Your task to perform on an android device: Open Android settings Image 0: 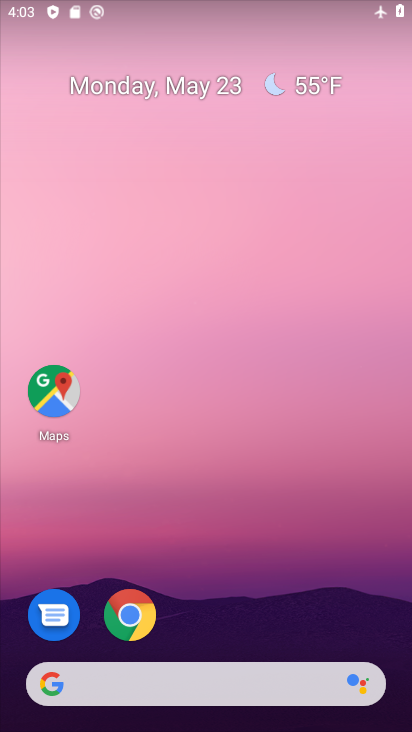
Step 0: drag from (393, 632) to (388, 261)
Your task to perform on an android device: Open Android settings Image 1: 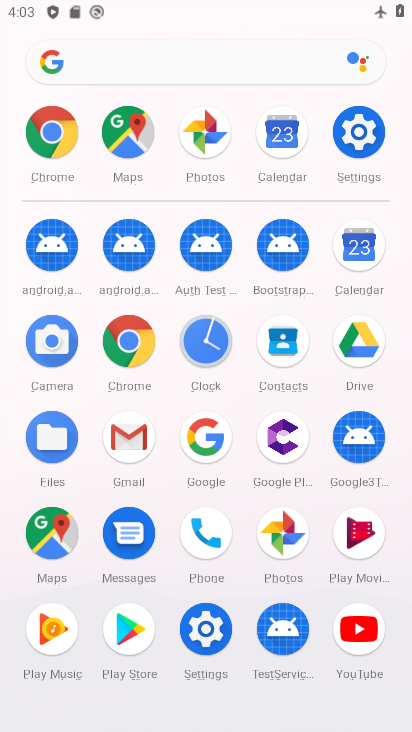
Step 1: click (207, 633)
Your task to perform on an android device: Open Android settings Image 2: 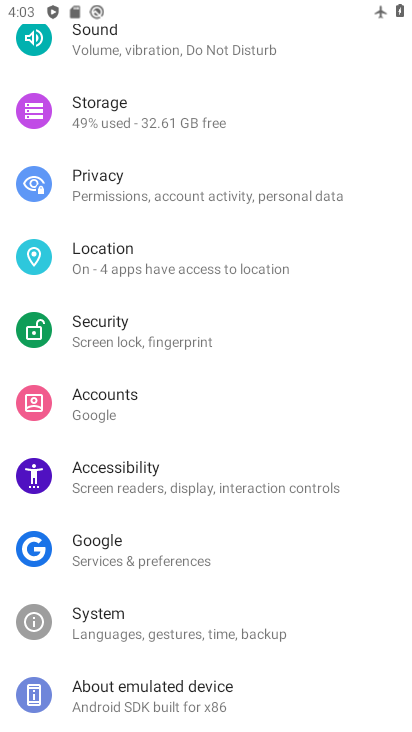
Step 2: drag from (331, 387) to (326, 508)
Your task to perform on an android device: Open Android settings Image 3: 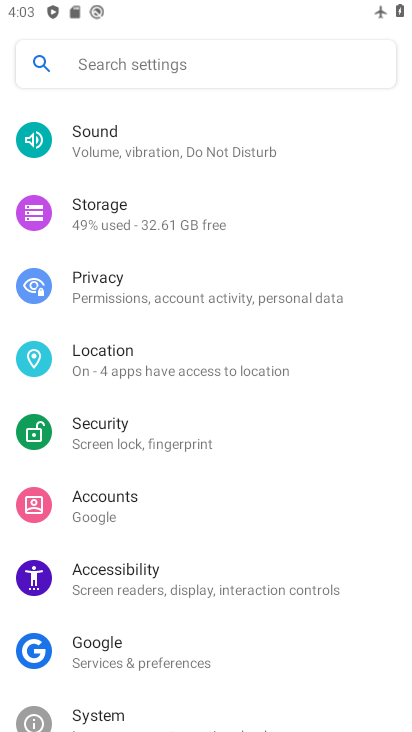
Step 3: drag from (334, 363) to (335, 451)
Your task to perform on an android device: Open Android settings Image 4: 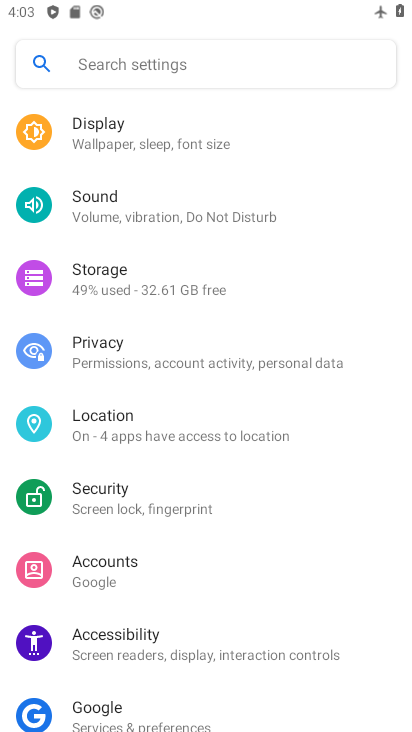
Step 4: drag from (354, 331) to (355, 458)
Your task to perform on an android device: Open Android settings Image 5: 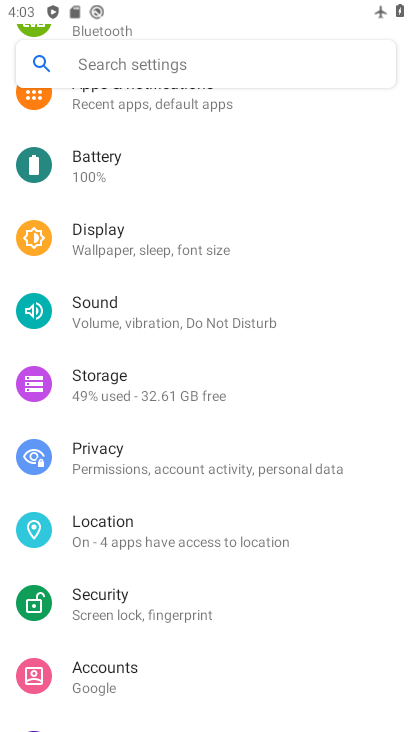
Step 5: drag from (351, 330) to (352, 429)
Your task to perform on an android device: Open Android settings Image 6: 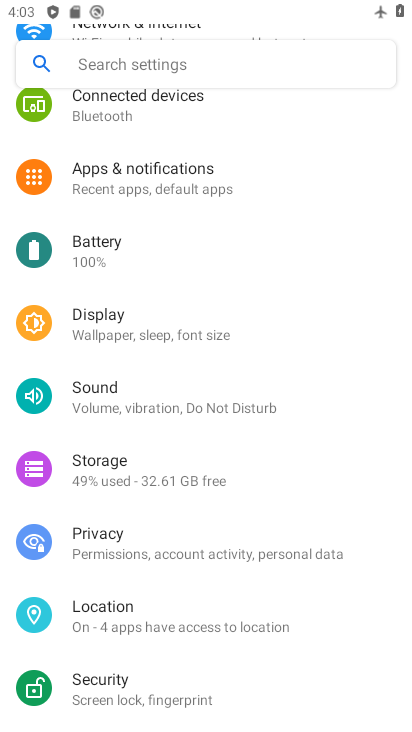
Step 6: drag from (358, 334) to (353, 484)
Your task to perform on an android device: Open Android settings Image 7: 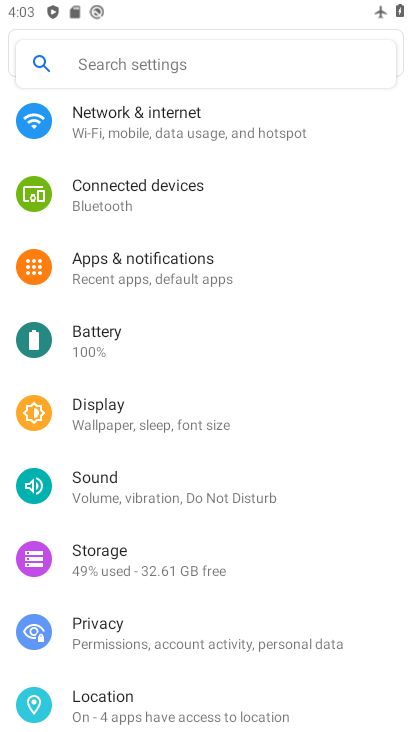
Step 7: drag from (364, 299) to (356, 483)
Your task to perform on an android device: Open Android settings Image 8: 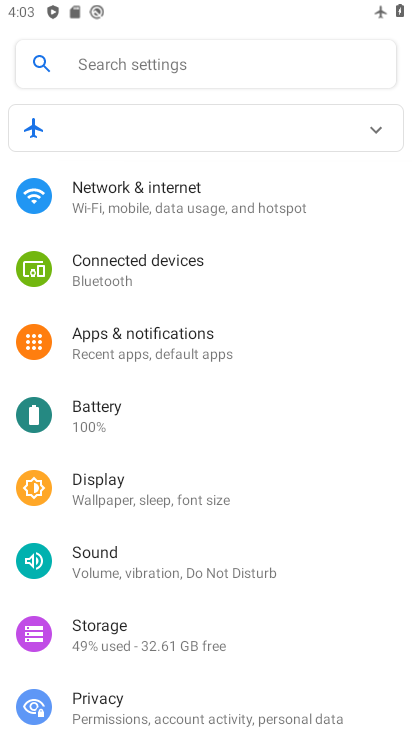
Step 8: drag from (362, 517) to (363, 416)
Your task to perform on an android device: Open Android settings Image 9: 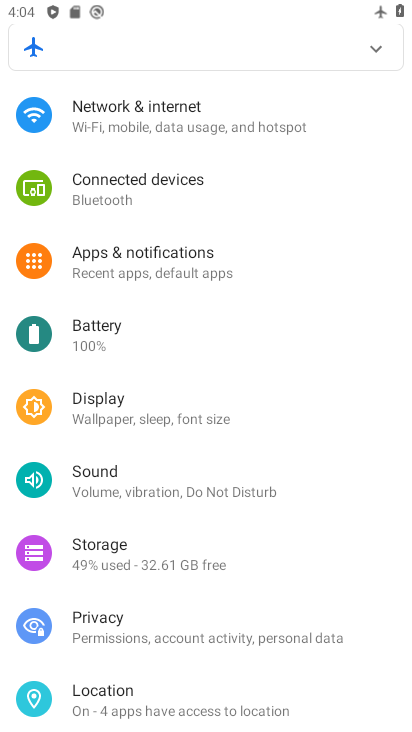
Step 9: drag from (357, 545) to (363, 430)
Your task to perform on an android device: Open Android settings Image 10: 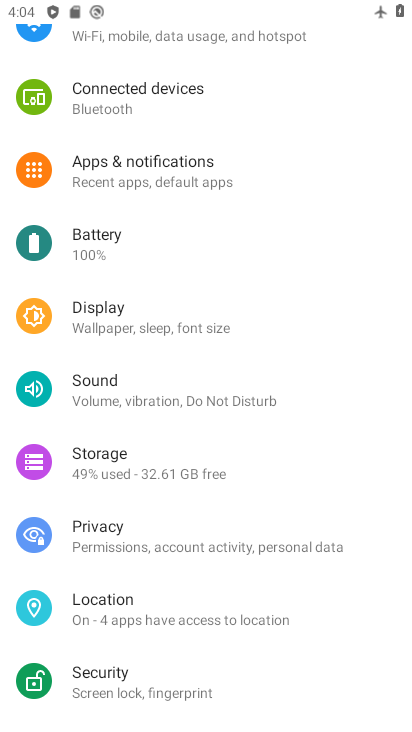
Step 10: drag from (358, 602) to (359, 494)
Your task to perform on an android device: Open Android settings Image 11: 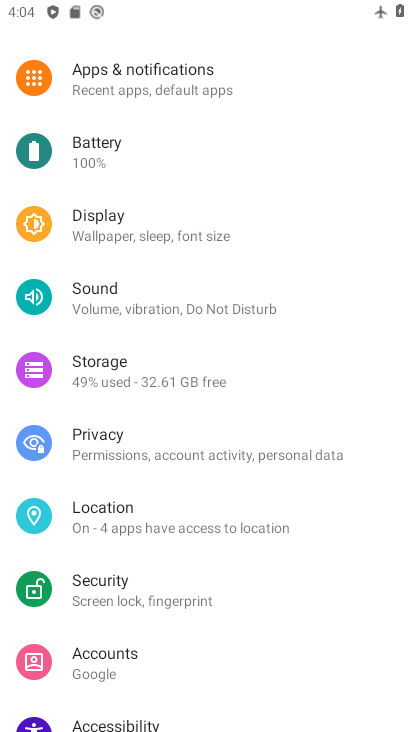
Step 11: drag from (362, 621) to (355, 496)
Your task to perform on an android device: Open Android settings Image 12: 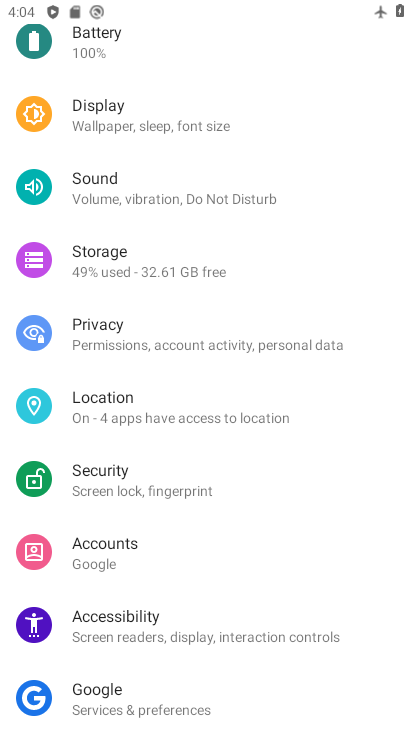
Step 12: drag from (344, 648) to (343, 524)
Your task to perform on an android device: Open Android settings Image 13: 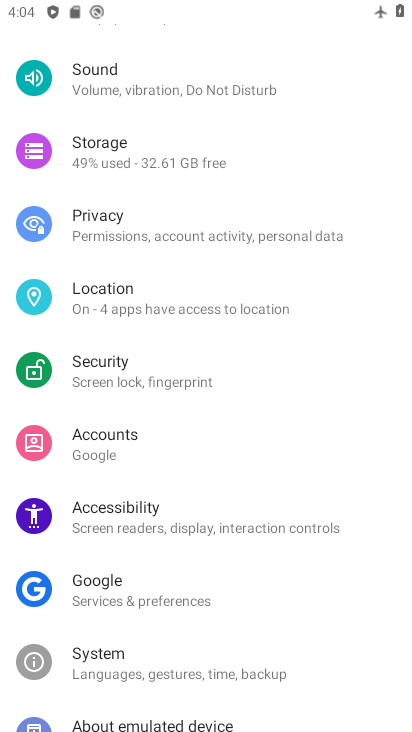
Step 13: drag from (352, 656) to (359, 389)
Your task to perform on an android device: Open Android settings Image 14: 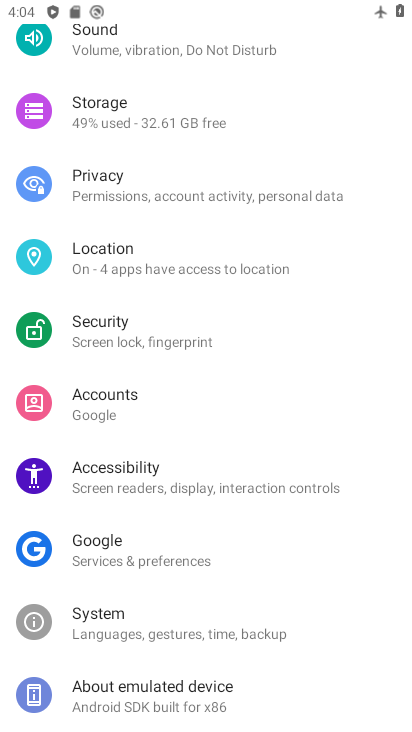
Step 14: click (291, 633)
Your task to perform on an android device: Open Android settings Image 15: 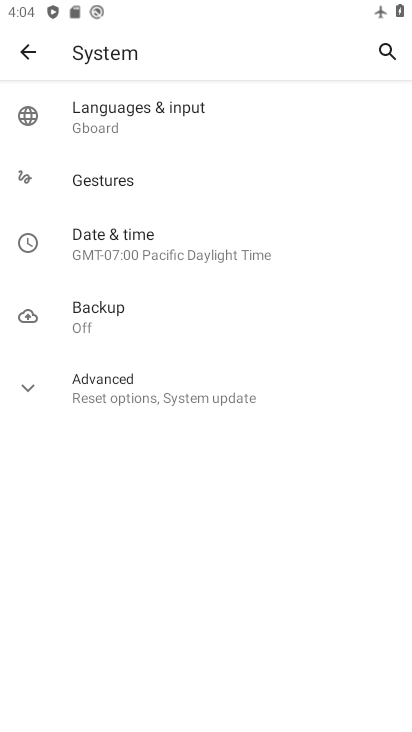
Step 15: click (249, 407)
Your task to perform on an android device: Open Android settings Image 16: 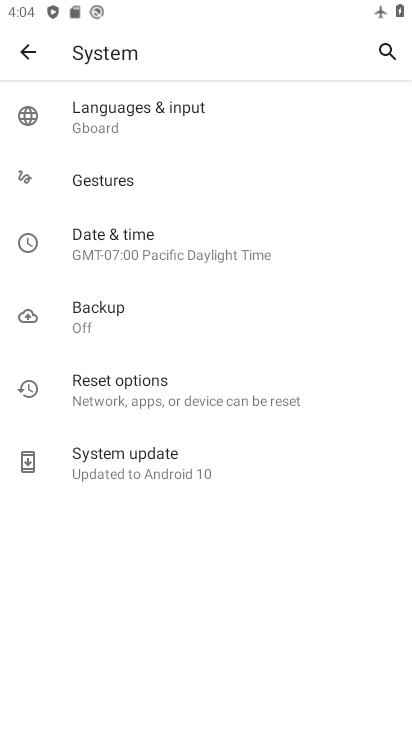
Step 16: task complete